Your task to perform on an android device: turn off notifications in google photos Image 0: 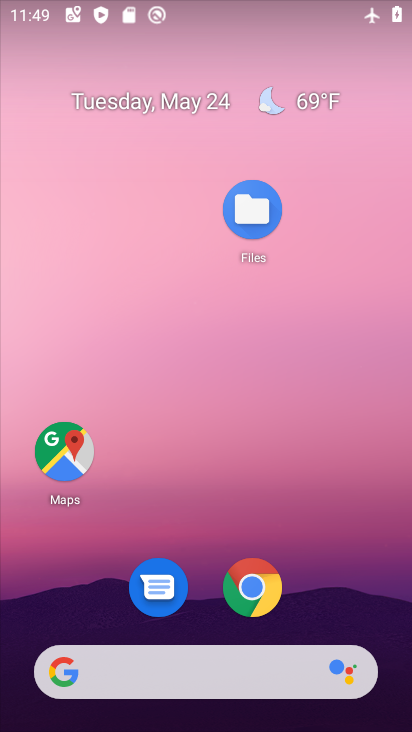
Step 0: drag from (305, 605) to (156, 306)
Your task to perform on an android device: turn off notifications in google photos Image 1: 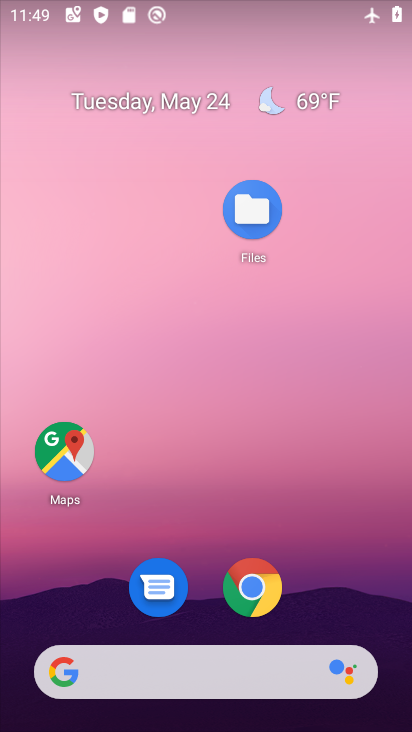
Step 1: drag from (343, 599) to (129, 141)
Your task to perform on an android device: turn off notifications in google photos Image 2: 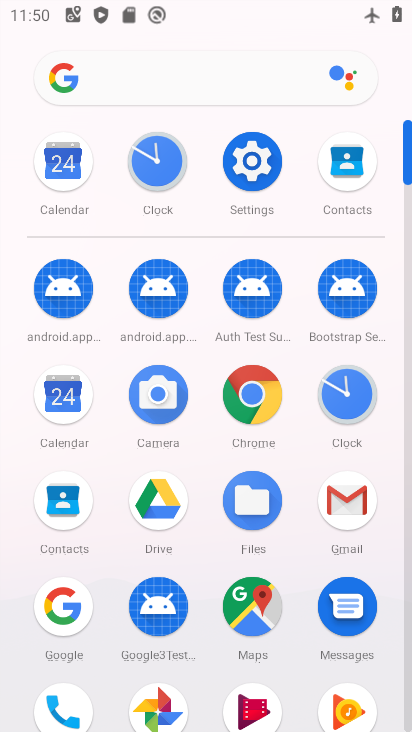
Step 2: click (151, 717)
Your task to perform on an android device: turn off notifications in google photos Image 3: 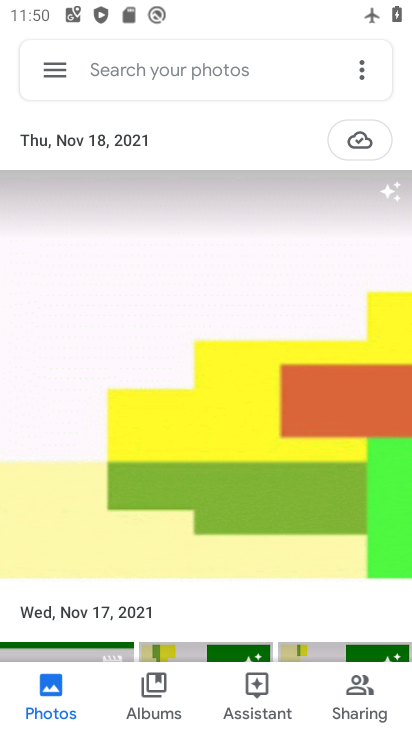
Step 3: click (57, 73)
Your task to perform on an android device: turn off notifications in google photos Image 4: 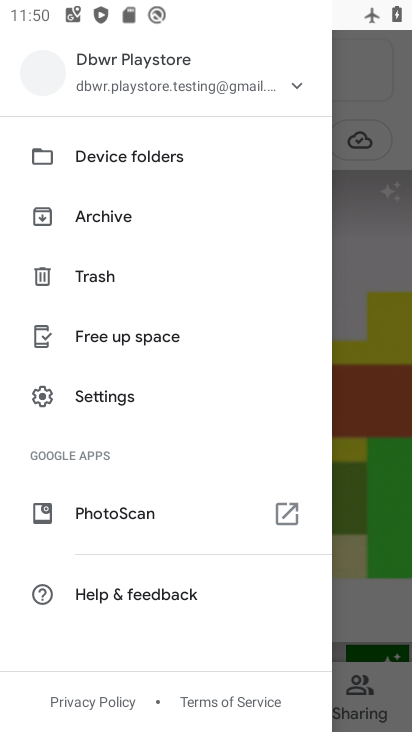
Step 4: click (102, 411)
Your task to perform on an android device: turn off notifications in google photos Image 5: 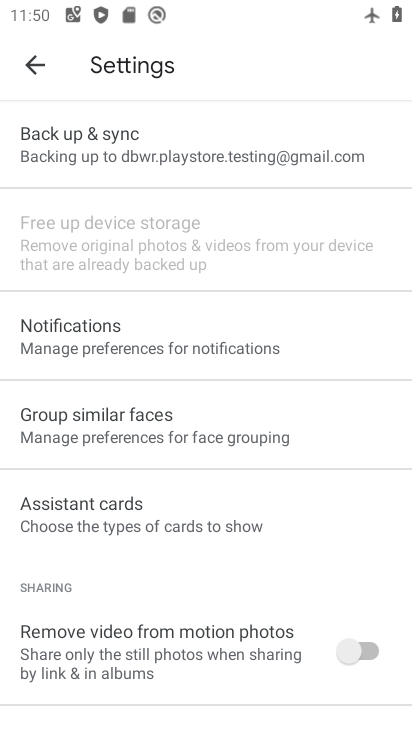
Step 5: click (111, 351)
Your task to perform on an android device: turn off notifications in google photos Image 6: 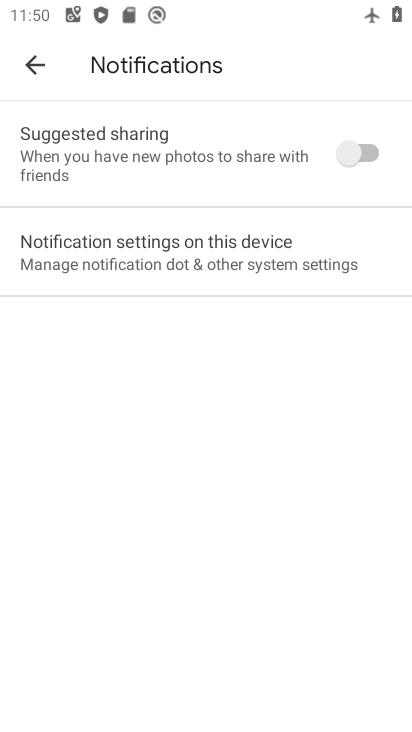
Step 6: click (162, 260)
Your task to perform on an android device: turn off notifications in google photos Image 7: 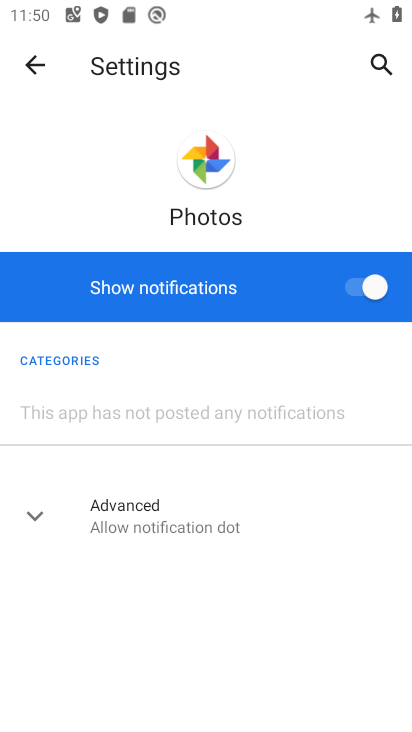
Step 7: click (362, 290)
Your task to perform on an android device: turn off notifications in google photos Image 8: 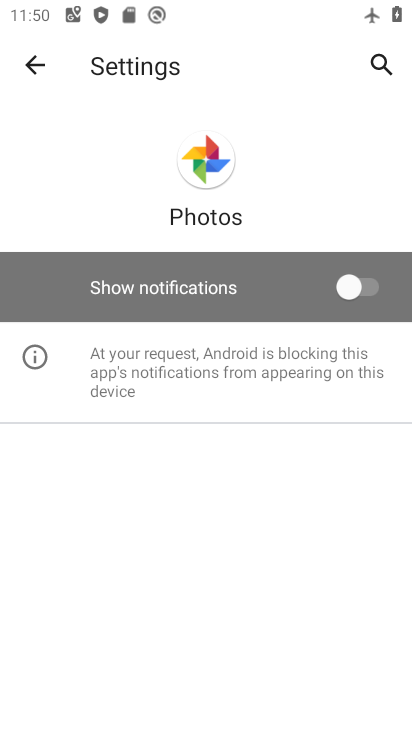
Step 8: task complete